Your task to perform on an android device: Open Wikipedia Image 0: 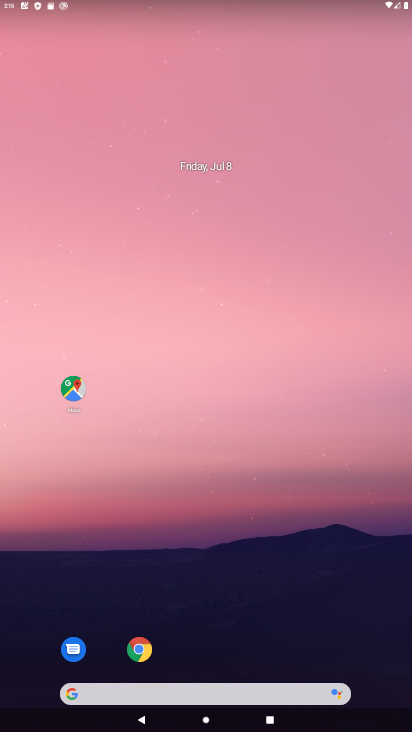
Step 0: click (147, 649)
Your task to perform on an android device: Open Wikipedia Image 1: 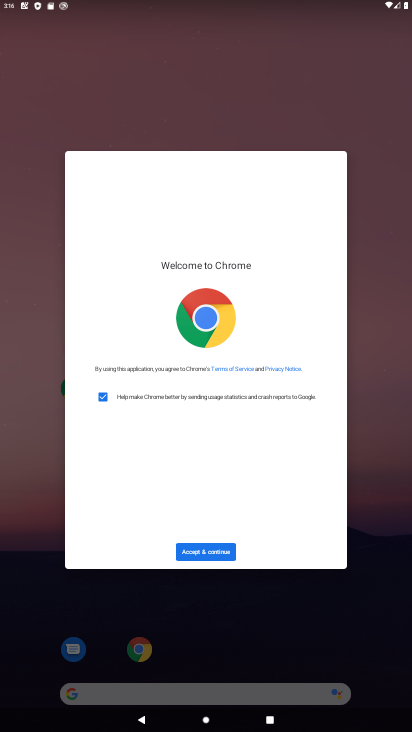
Step 1: click (209, 557)
Your task to perform on an android device: Open Wikipedia Image 2: 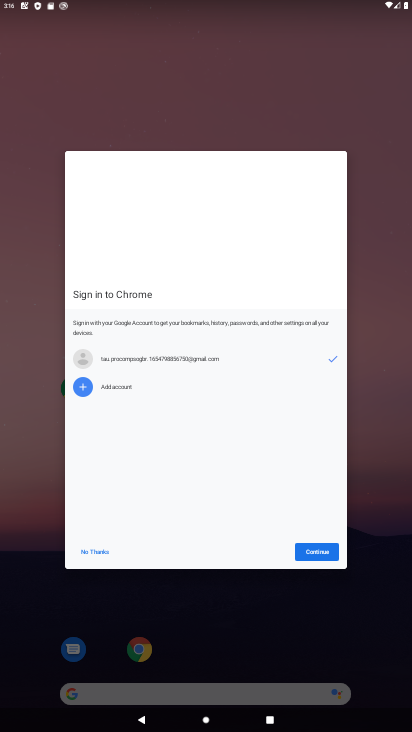
Step 2: click (327, 546)
Your task to perform on an android device: Open Wikipedia Image 3: 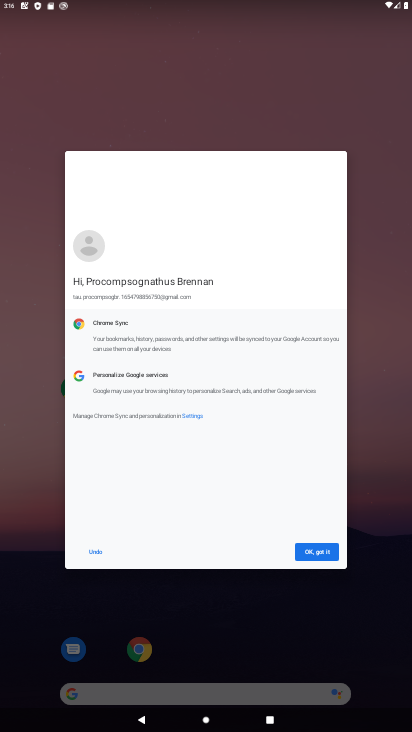
Step 3: click (327, 546)
Your task to perform on an android device: Open Wikipedia Image 4: 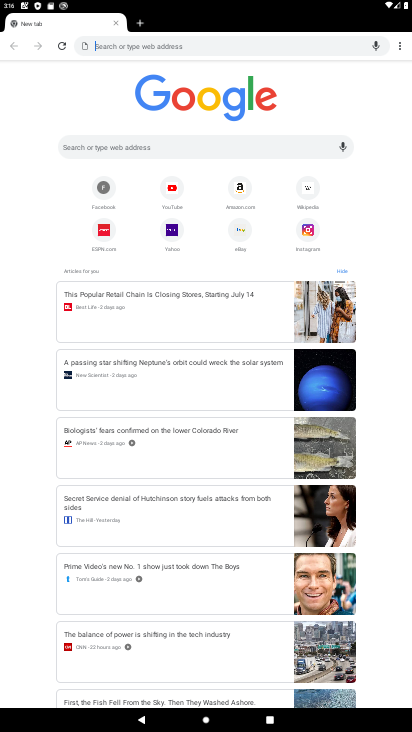
Step 4: click (311, 201)
Your task to perform on an android device: Open Wikipedia Image 5: 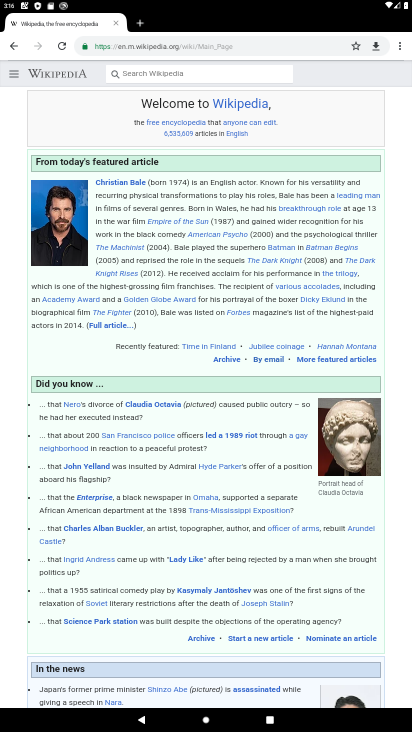
Step 5: task complete